Your task to perform on an android device: Go to accessibility settings Image 0: 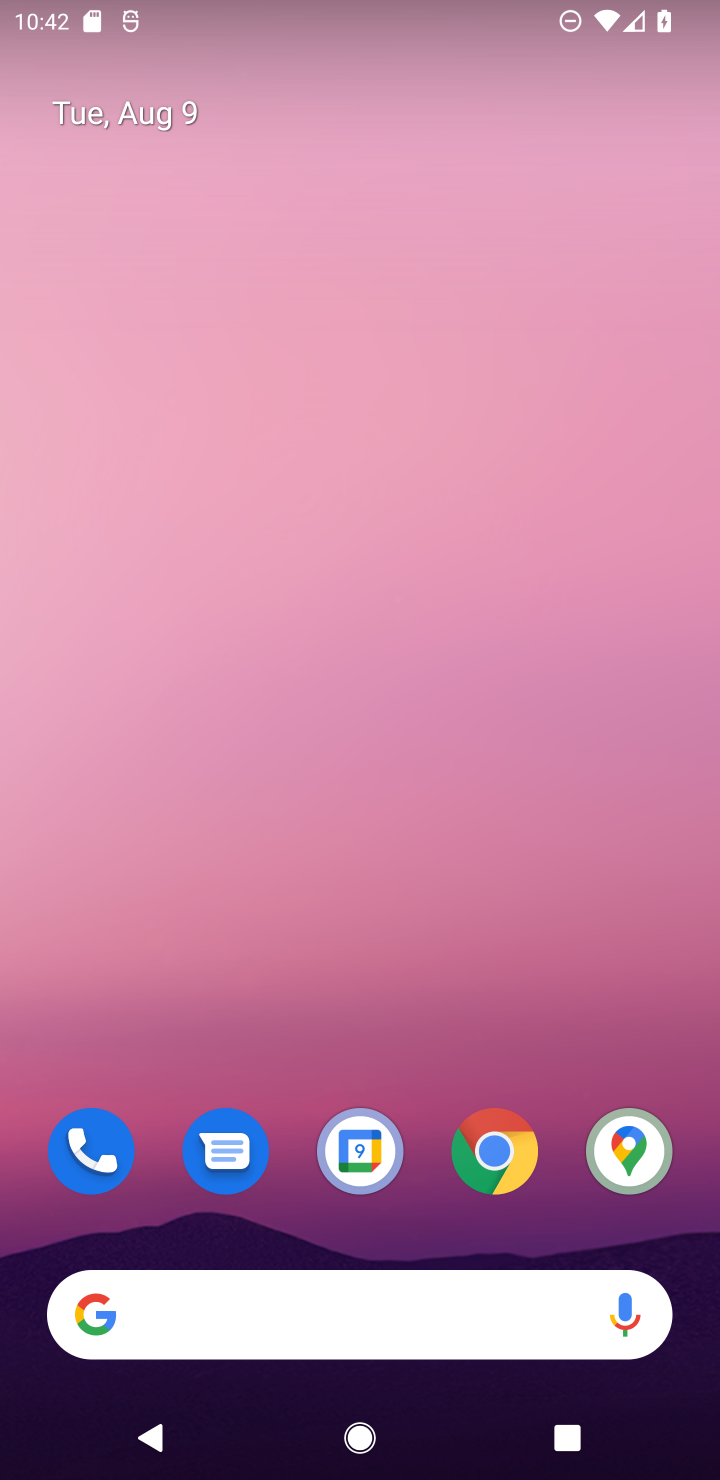
Step 0: drag from (338, 1229) to (531, 166)
Your task to perform on an android device: Go to accessibility settings Image 1: 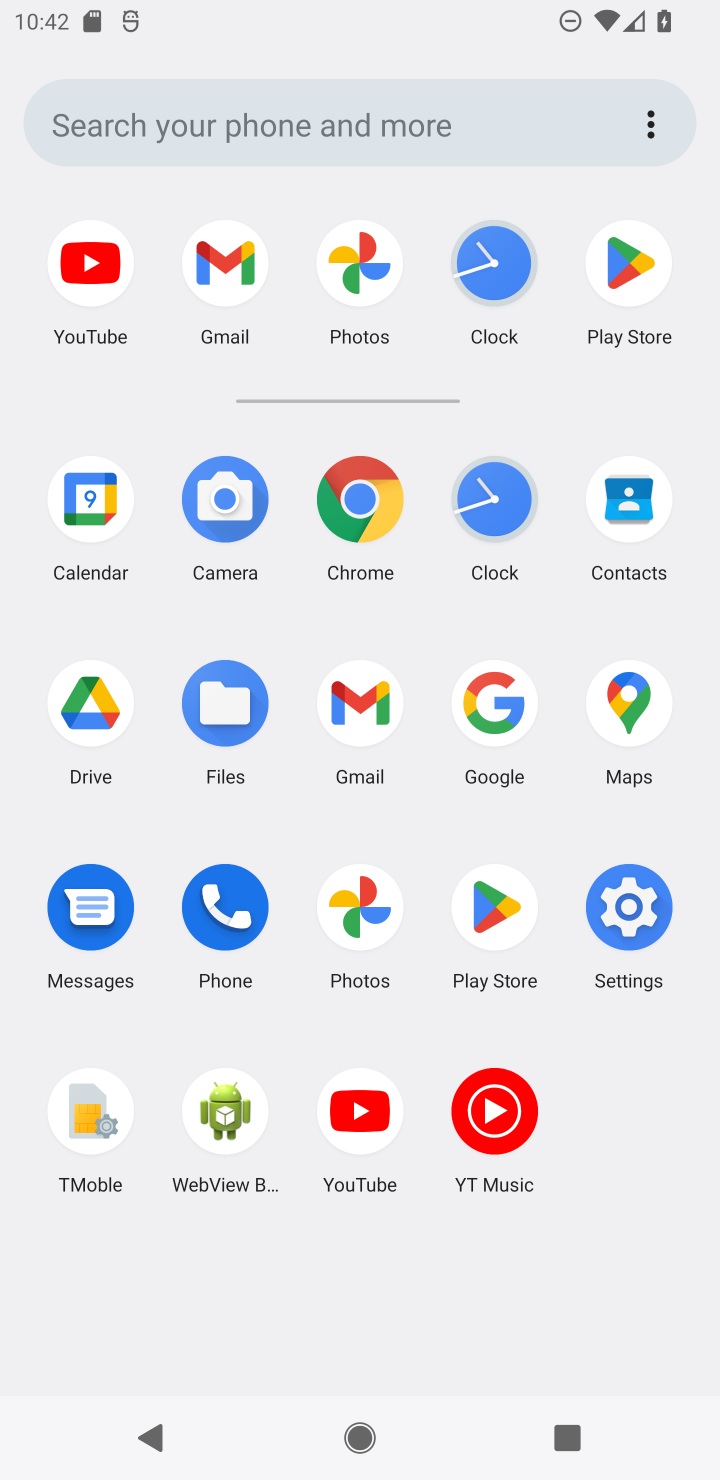
Step 1: click (625, 942)
Your task to perform on an android device: Go to accessibility settings Image 2: 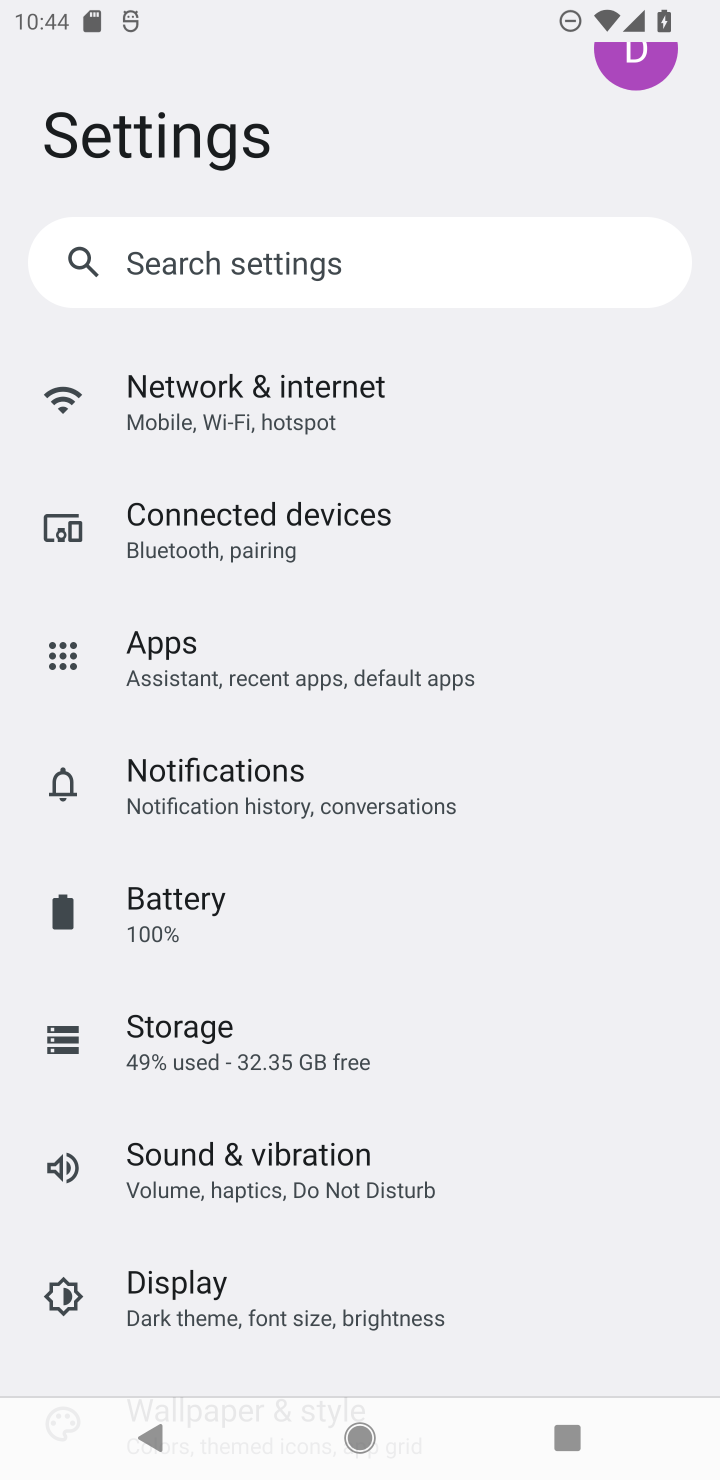
Step 2: drag from (515, 1122) to (545, 247)
Your task to perform on an android device: Go to accessibility settings Image 3: 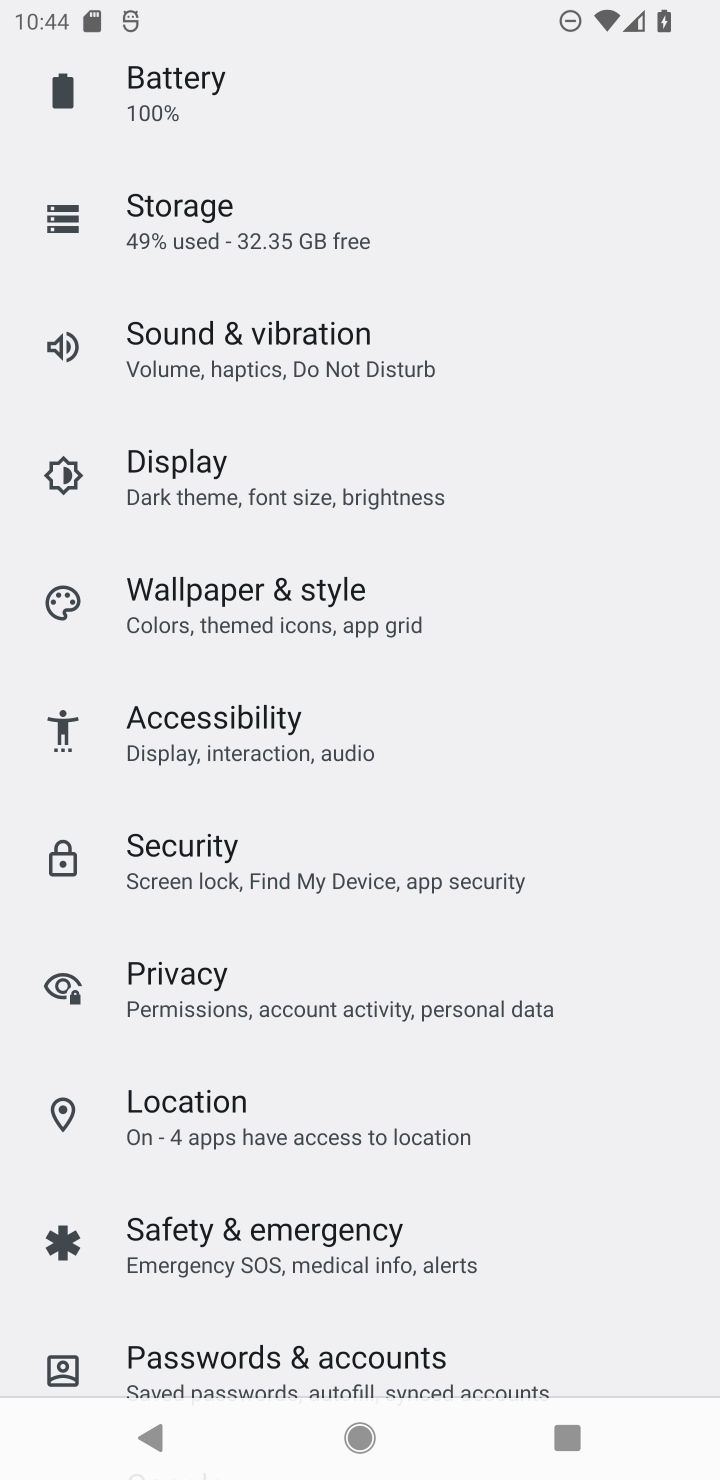
Step 3: click (254, 729)
Your task to perform on an android device: Go to accessibility settings Image 4: 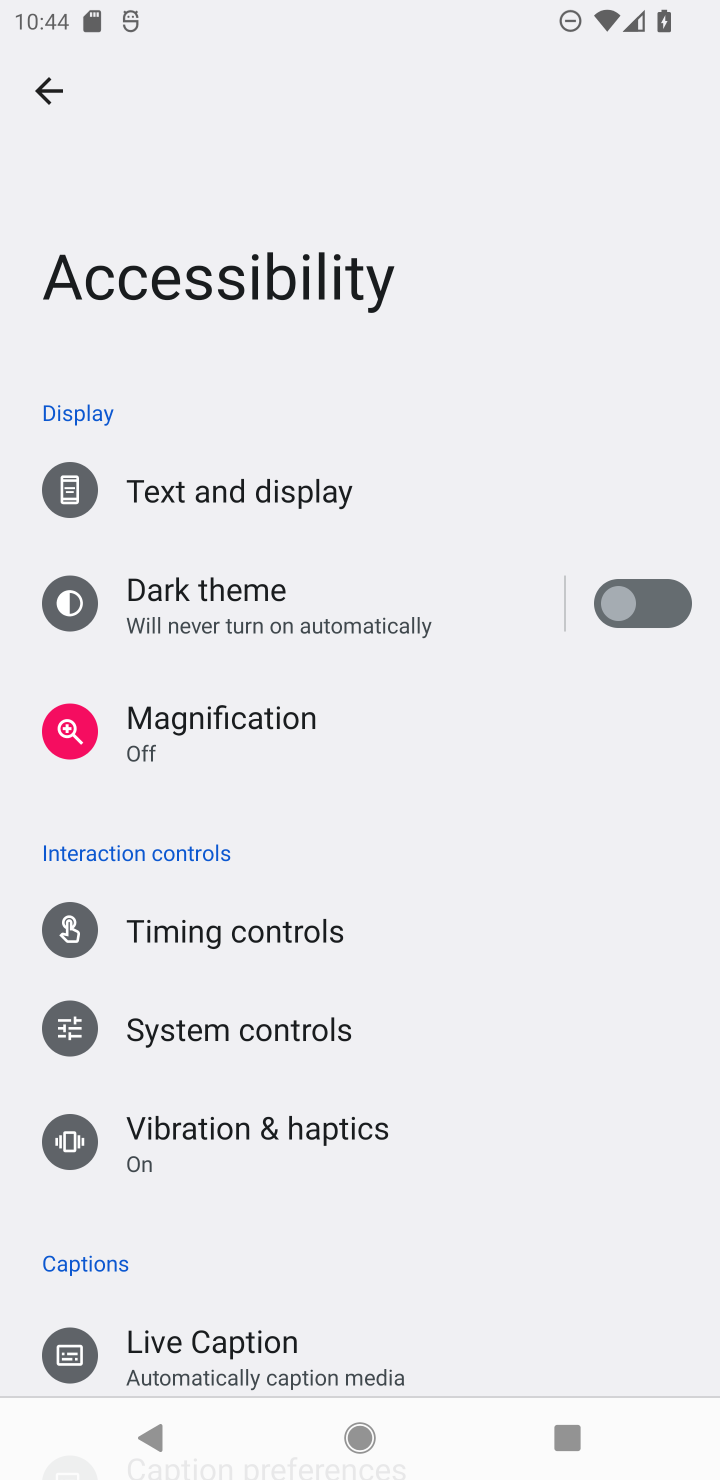
Step 4: task complete